Your task to perform on an android device: Open privacy settings Image 0: 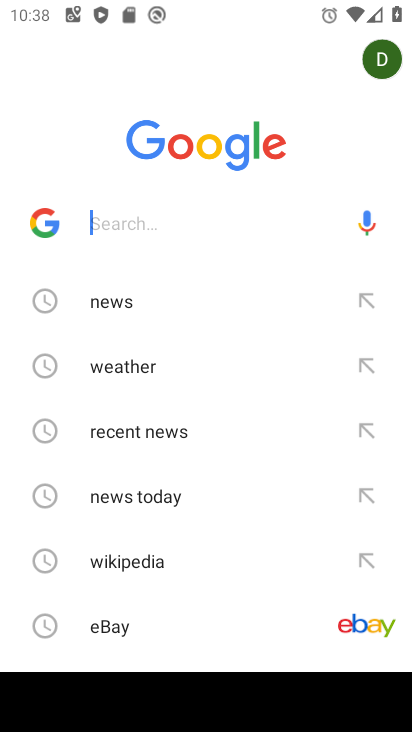
Step 0: press home button
Your task to perform on an android device: Open privacy settings Image 1: 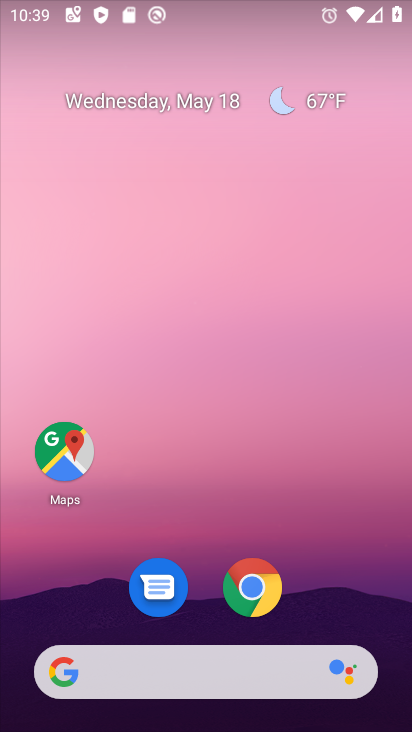
Step 1: drag from (313, 562) to (253, 66)
Your task to perform on an android device: Open privacy settings Image 2: 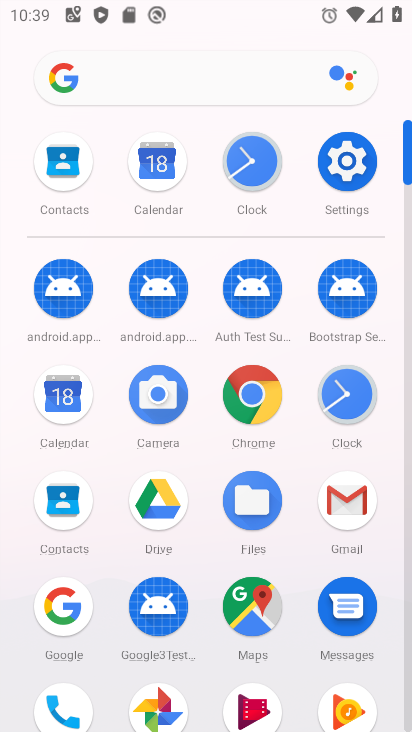
Step 2: click (348, 156)
Your task to perform on an android device: Open privacy settings Image 3: 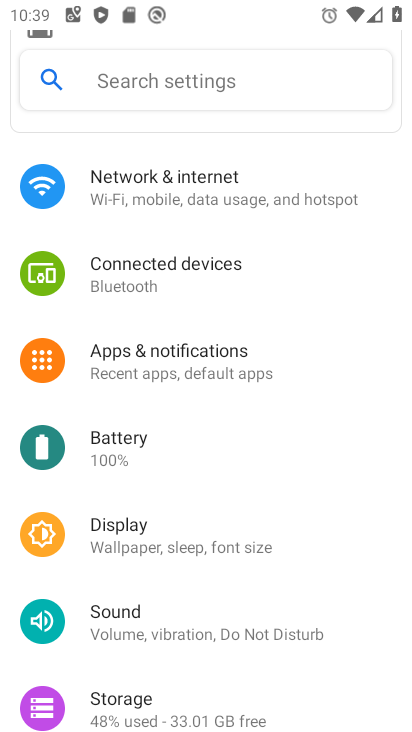
Step 3: drag from (267, 677) to (267, 286)
Your task to perform on an android device: Open privacy settings Image 4: 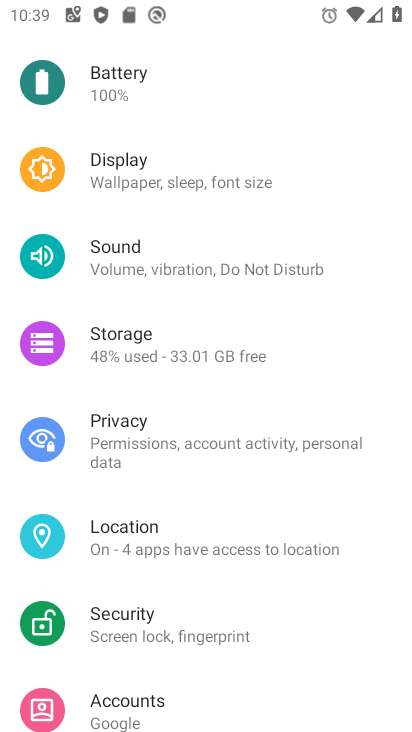
Step 4: click (252, 444)
Your task to perform on an android device: Open privacy settings Image 5: 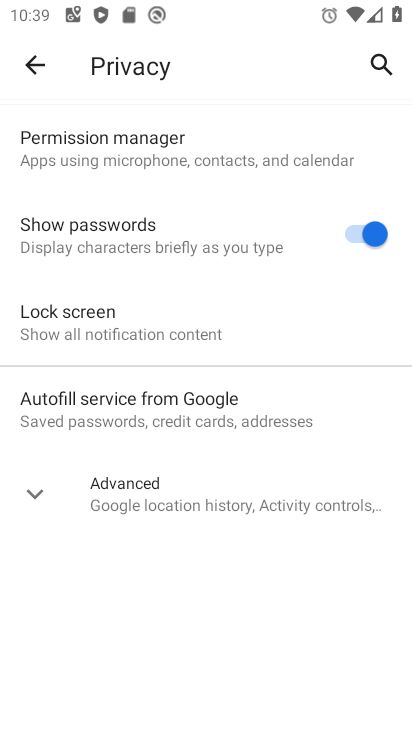
Step 5: task complete